Your task to perform on an android device: Open Android settings Image 0: 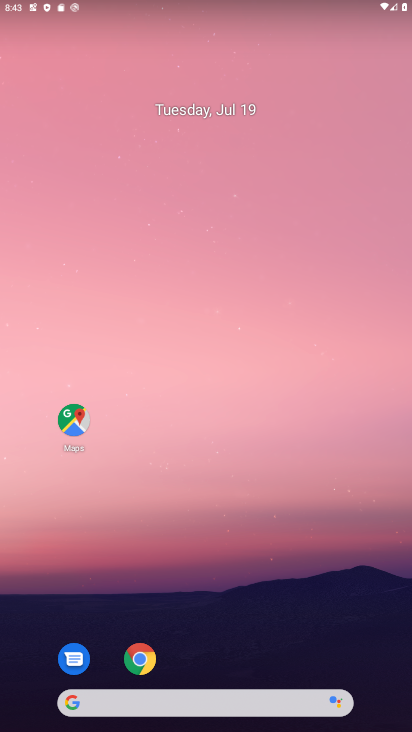
Step 0: drag from (239, 687) to (268, 337)
Your task to perform on an android device: Open Android settings Image 1: 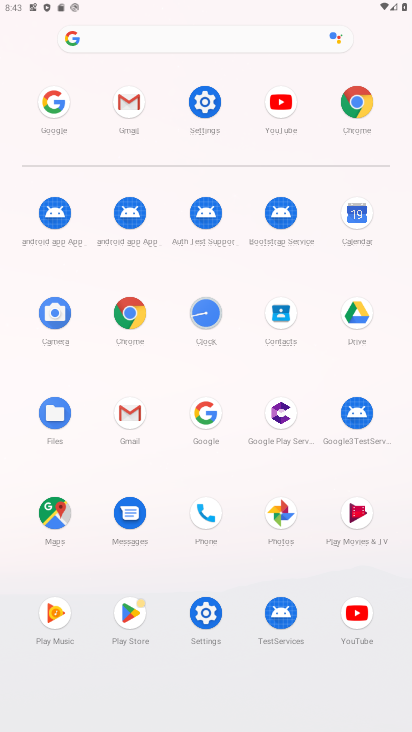
Step 1: click (203, 98)
Your task to perform on an android device: Open Android settings Image 2: 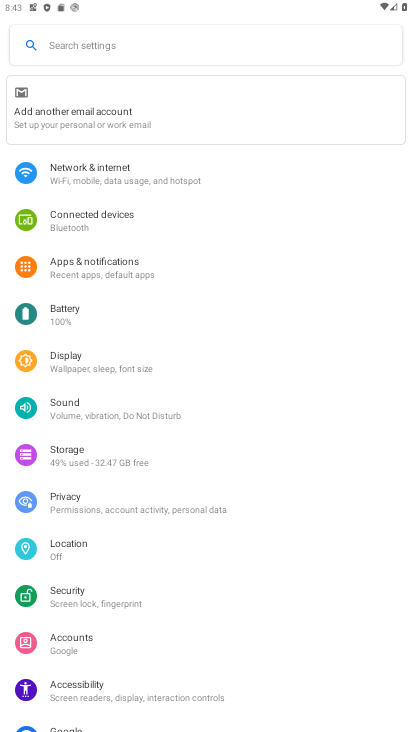
Step 2: task complete